Your task to perform on an android device: turn on bluetooth scan Image 0: 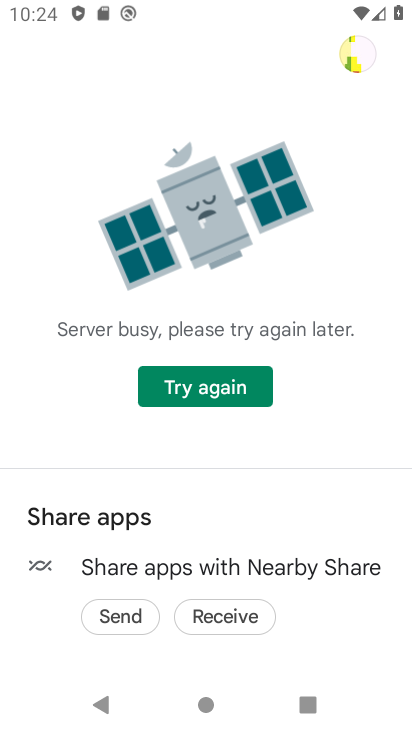
Step 0: press home button
Your task to perform on an android device: turn on bluetooth scan Image 1: 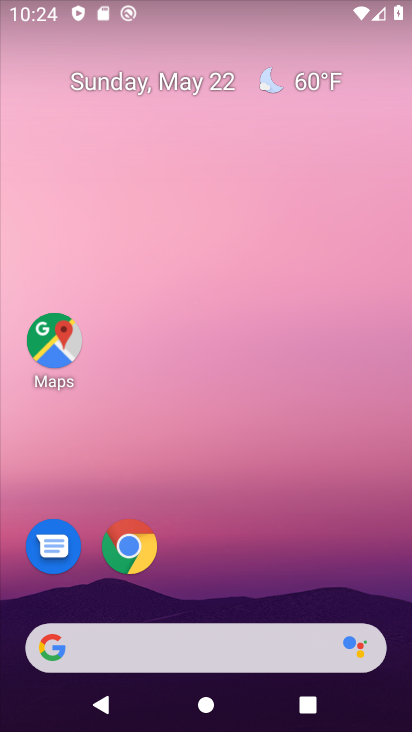
Step 1: drag from (239, 725) to (83, 13)
Your task to perform on an android device: turn on bluetooth scan Image 2: 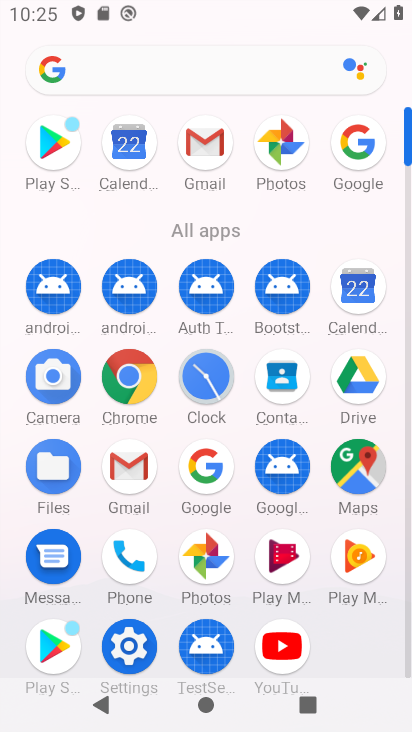
Step 2: click (133, 644)
Your task to perform on an android device: turn on bluetooth scan Image 3: 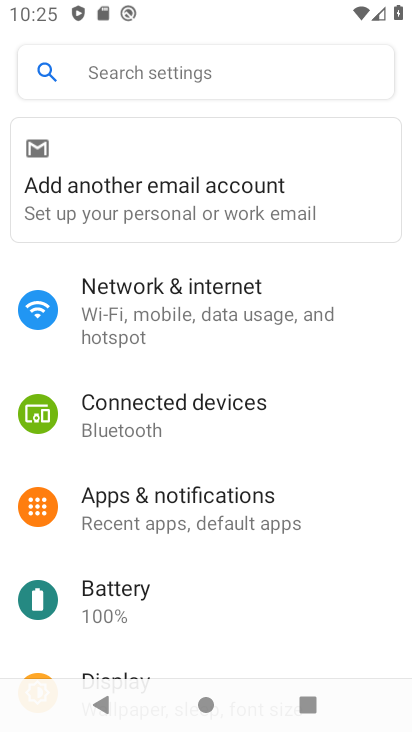
Step 3: drag from (183, 632) to (186, 247)
Your task to perform on an android device: turn on bluetooth scan Image 4: 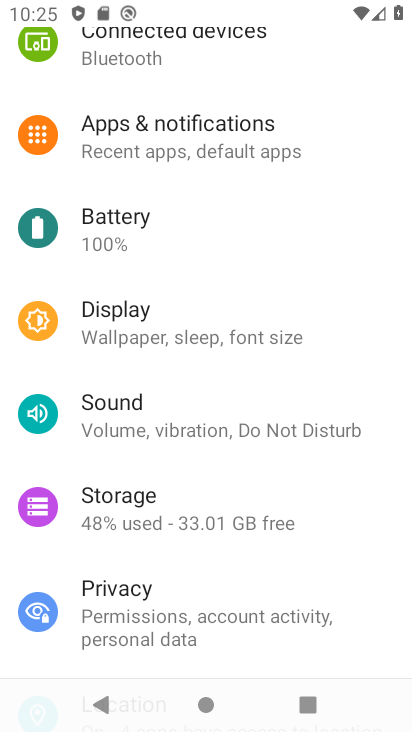
Step 4: drag from (150, 570) to (152, 236)
Your task to perform on an android device: turn on bluetooth scan Image 5: 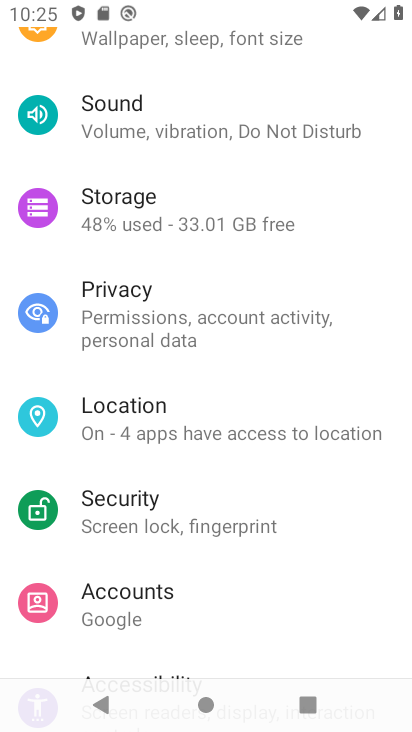
Step 5: click (142, 423)
Your task to perform on an android device: turn on bluetooth scan Image 6: 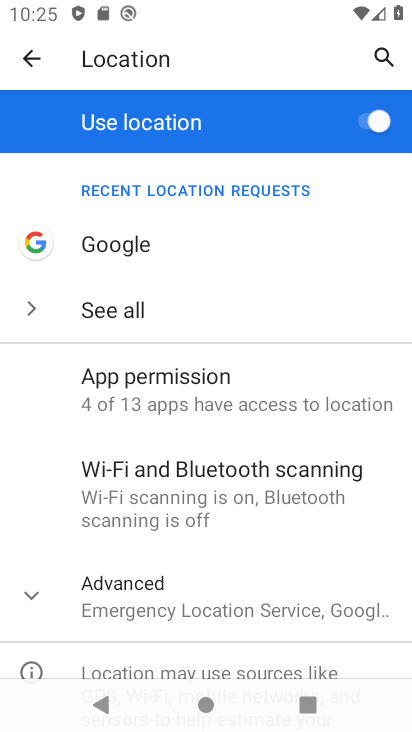
Step 6: click (185, 486)
Your task to perform on an android device: turn on bluetooth scan Image 7: 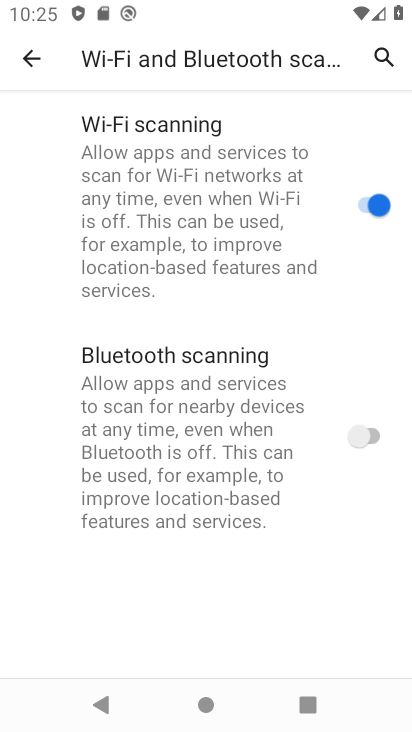
Step 7: click (377, 437)
Your task to perform on an android device: turn on bluetooth scan Image 8: 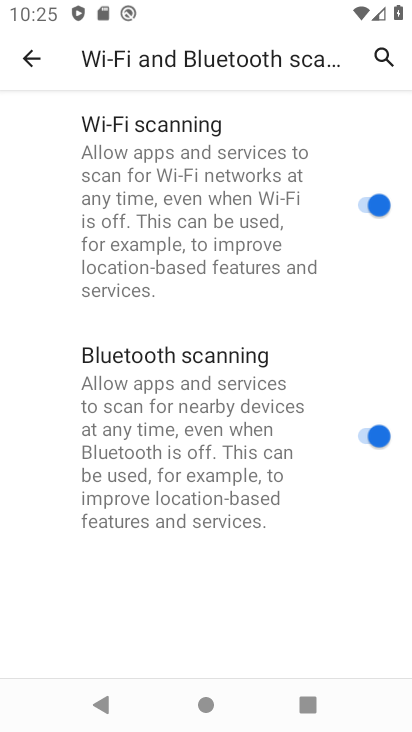
Step 8: task complete